Your task to perform on an android device: Go to ESPN.com Image 0: 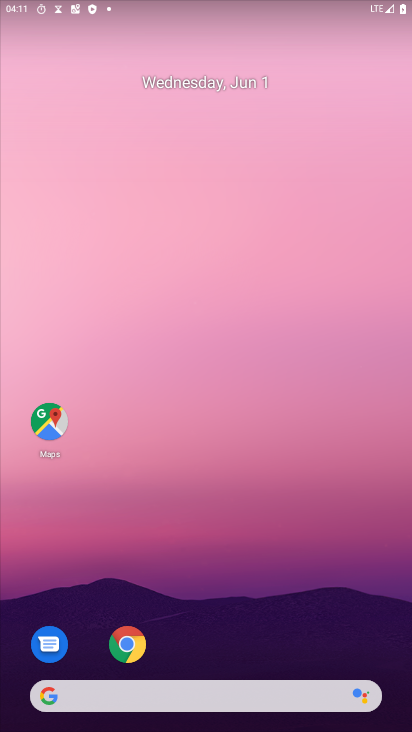
Step 0: click (225, 692)
Your task to perform on an android device: Go to ESPN.com Image 1: 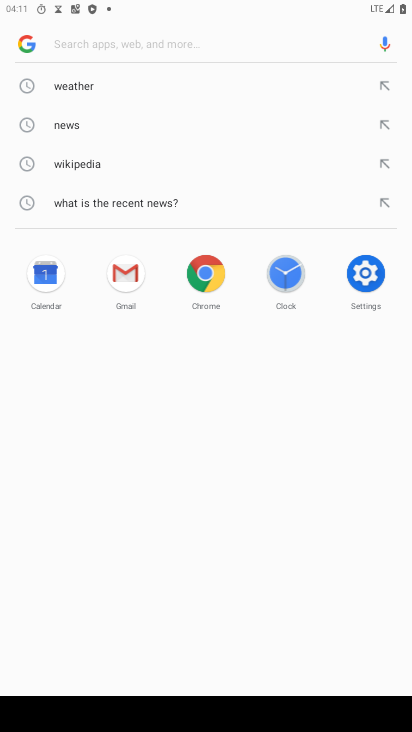
Step 1: type " ESPN.com"
Your task to perform on an android device: Go to ESPN.com Image 2: 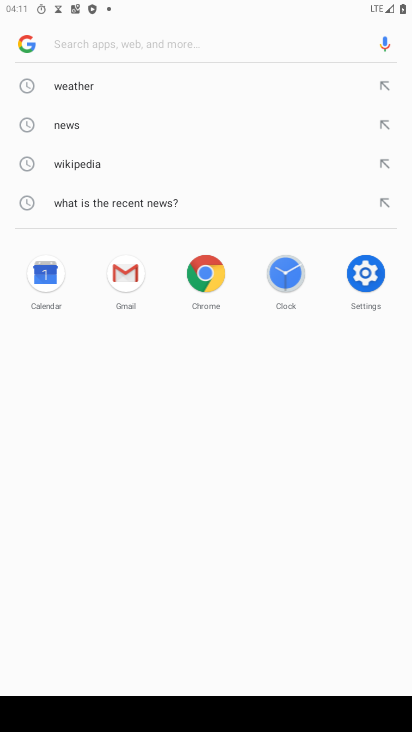
Step 2: click (120, 39)
Your task to perform on an android device: Go to ESPN.com Image 3: 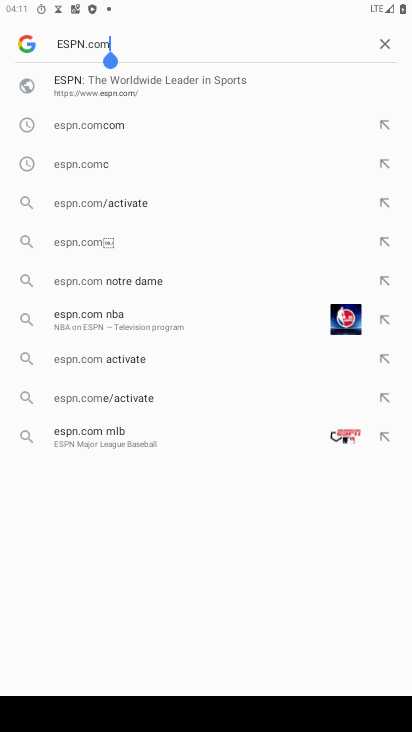
Step 3: click (96, 78)
Your task to perform on an android device: Go to ESPN.com Image 4: 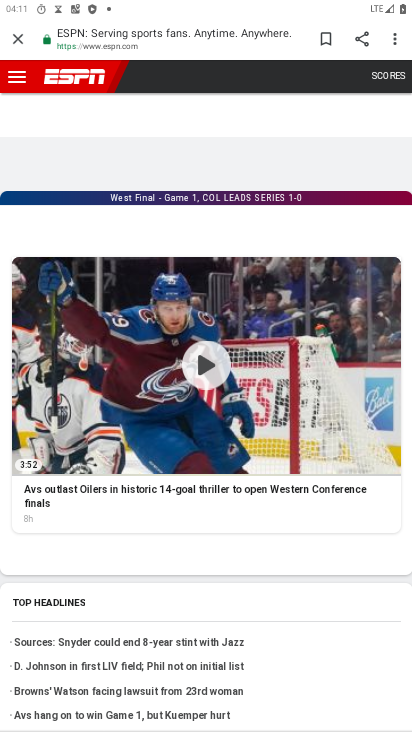
Step 4: task complete